Your task to perform on an android device: Open Google Image 0: 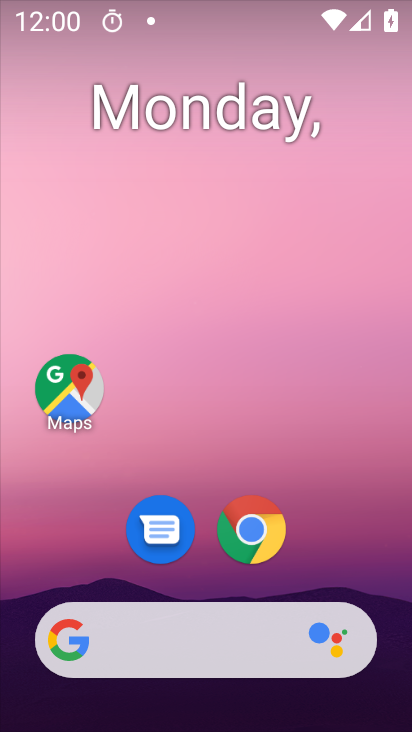
Step 0: drag from (382, 581) to (363, 168)
Your task to perform on an android device: Open Google Image 1: 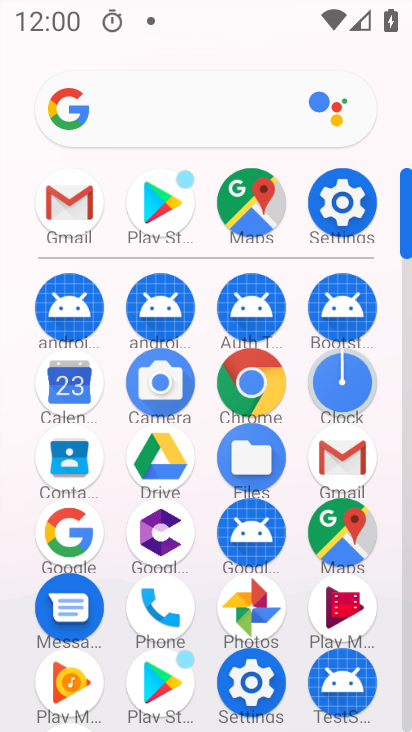
Step 1: drag from (391, 630) to (384, 421)
Your task to perform on an android device: Open Google Image 2: 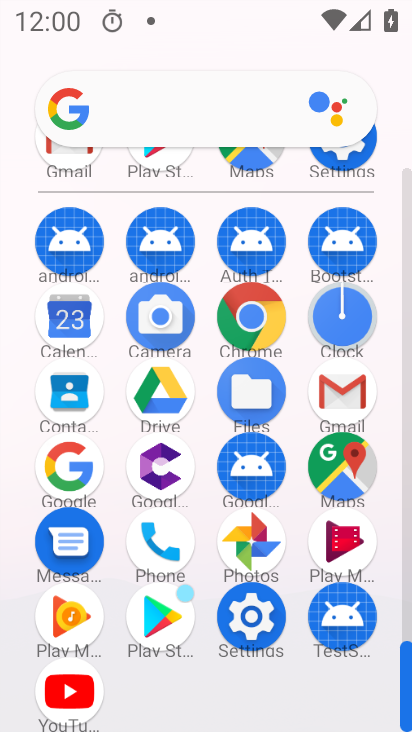
Step 2: click (75, 474)
Your task to perform on an android device: Open Google Image 3: 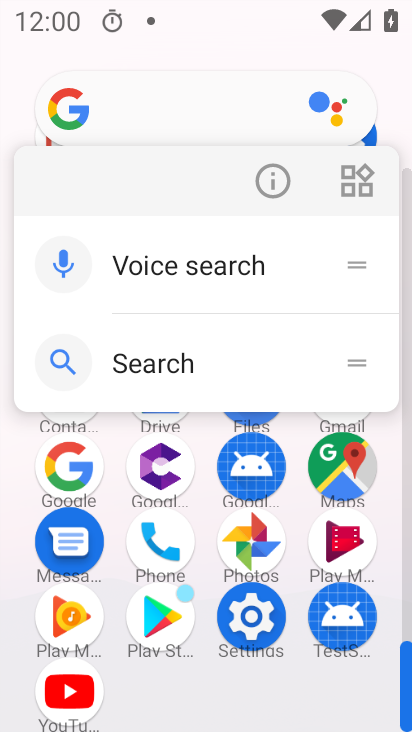
Step 3: click (75, 474)
Your task to perform on an android device: Open Google Image 4: 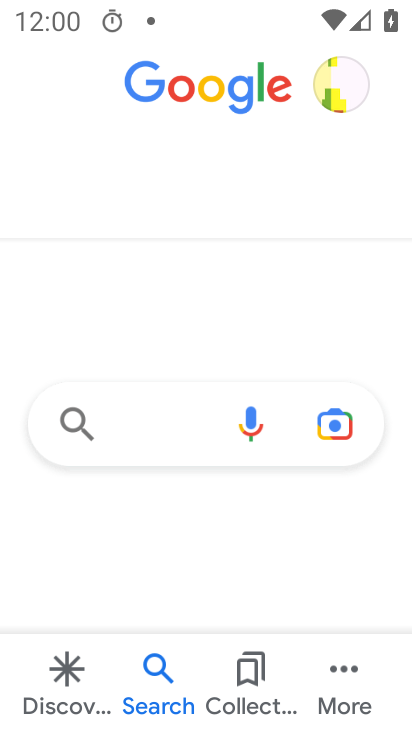
Step 4: task complete